Your task to perform on an android device: Do I have any events this weekend? Image 0: 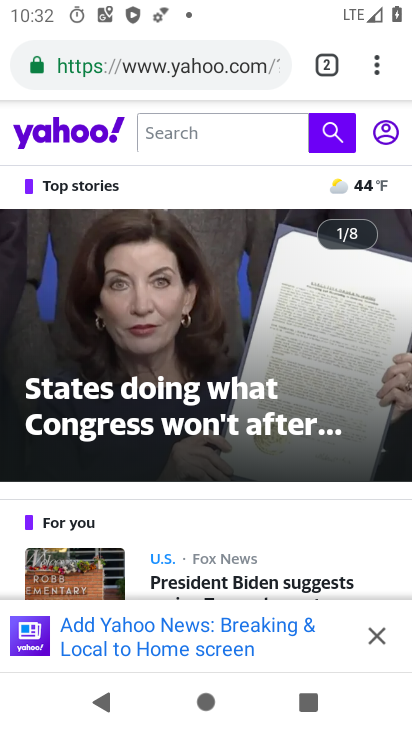
Step 0: press home button
Your task to perform on an android device: Do I have any events this weekend? Image 1: 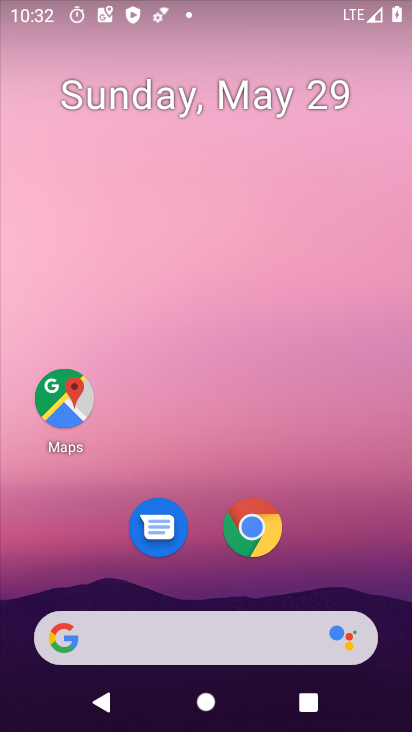
Step 1: drag from (336, 528) to (264, 61)
Your task to perform on an android device: Do I have any events this weekend? Image 2: 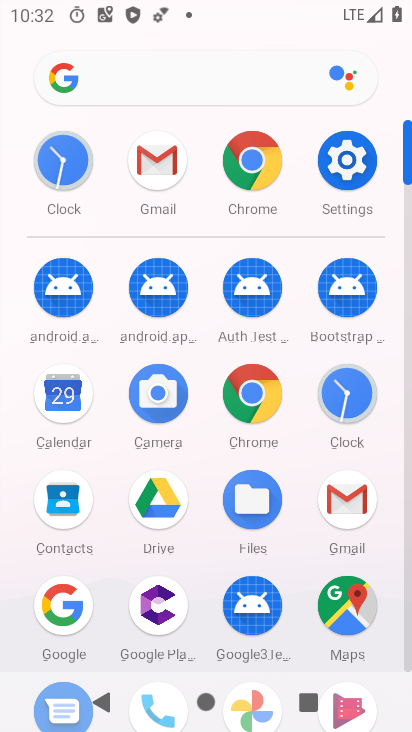
Step 2: click (56, 399)
Your task to perform on an android device: Do I have any events this weekend? Image 3: 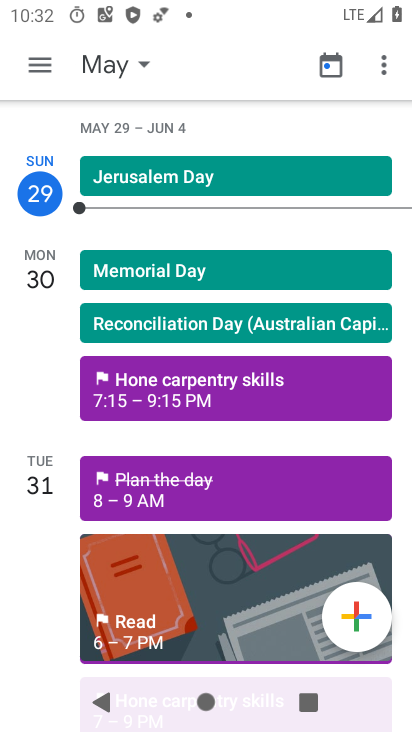
Step 3: click (91, 66)
Your task to perform on an android device: Do I have any events this weekend? Image 4: 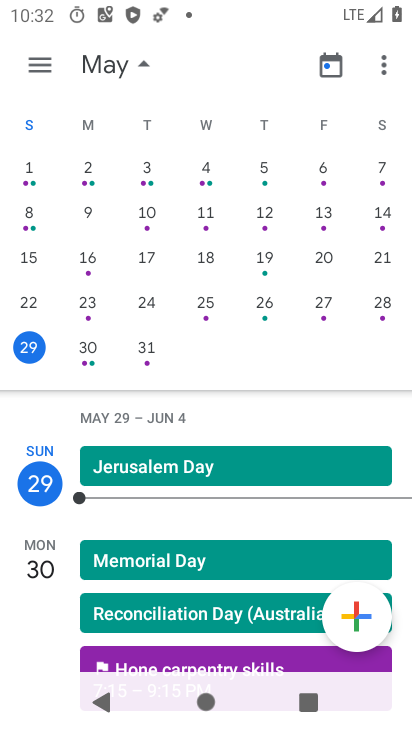
Step 4: drag from (347, 294) to (27, 276)
Your task to perform on an android device: Do I have any events this weekend? Image 5: 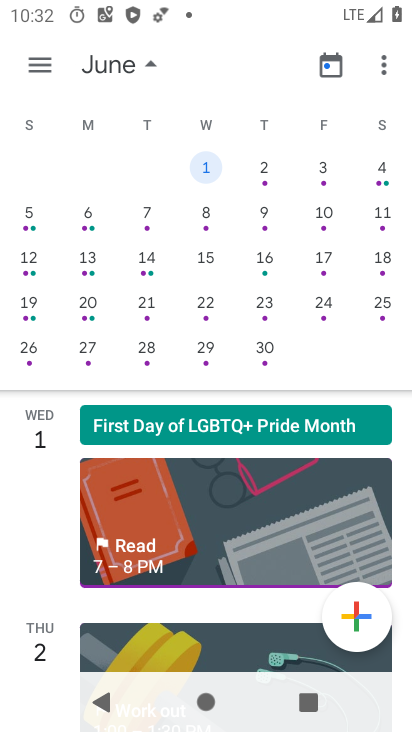
Step 5: click (377, 160)
Your task to perform on an android device: Do I have any events this weekend? Image 6: 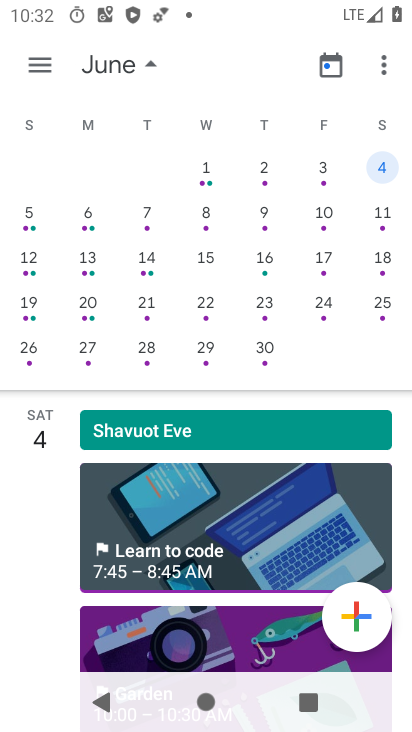
Step 6: drag from (139, 527) to (218, 76)
Your task to perform on an android device: Do I have any events this weekend? Image 7: 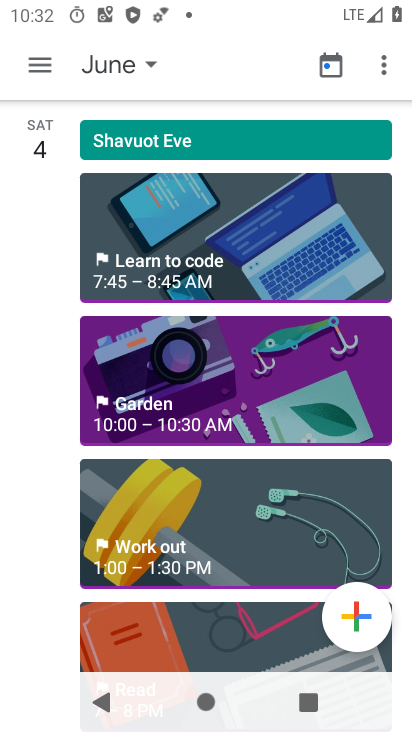
Step 7: click (45, 67)
Your task to perform on an android device: Do I have any events this weekend? Image 8: 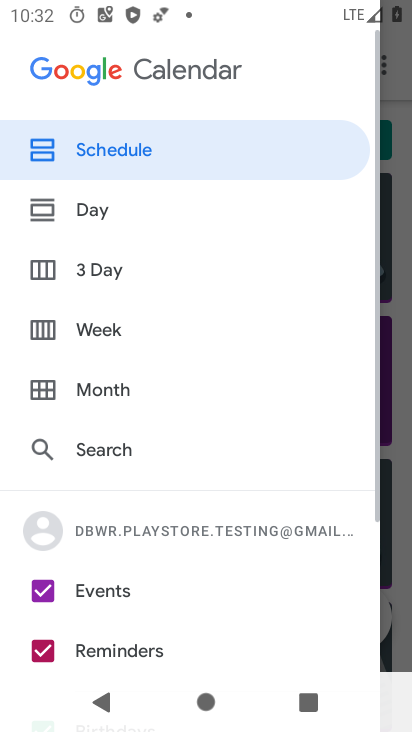
Step 8: click (102, 278)
Your task to perform on an android device: Do I have any events this weekend? Image 9: 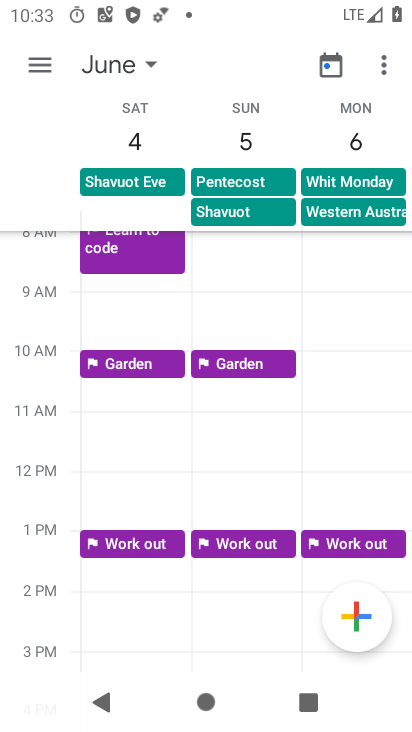
Step 9: task complete